Your task to perform on an android device: Check the weather Image 0: 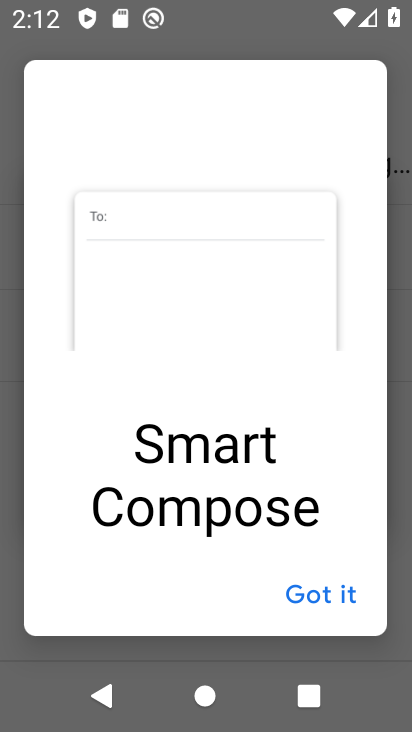
Step 0: press home button
Your task to perform on an android device: Check the weather Image 1: 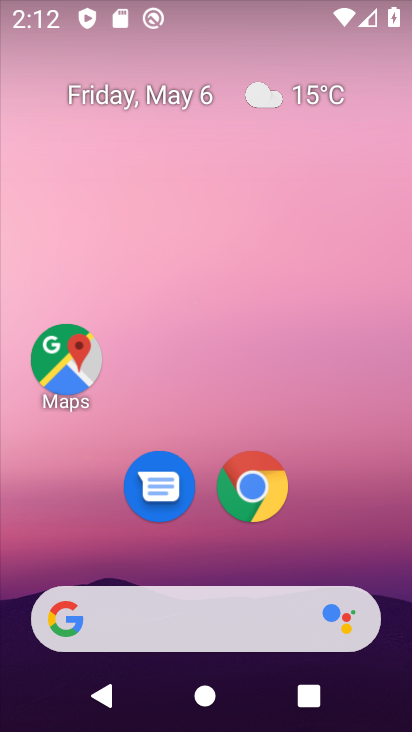
Step 1: click (278, 85)
Your task to perform on an android device: Check the weather Image 2: 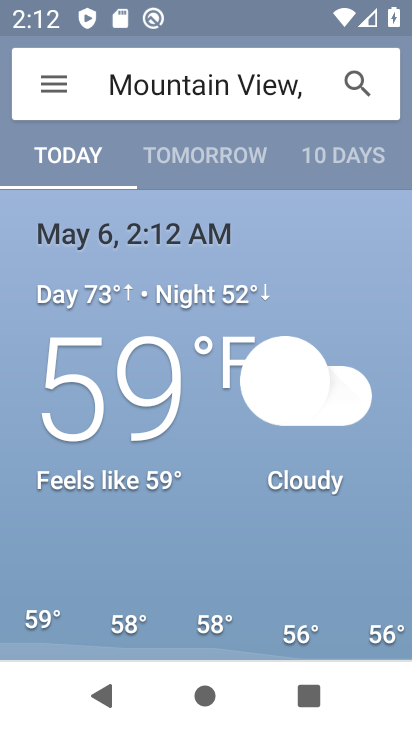
Step 2: task complete